Your task to perform on an android device: Go to Google Image 0: 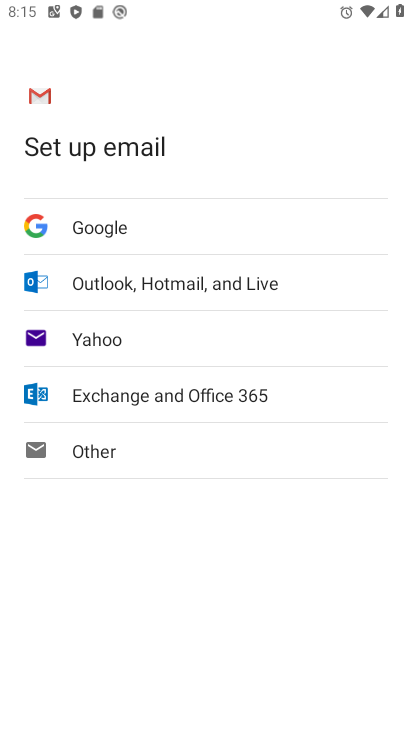
Step 0: press back button
Your task to perform on an android device: Go to Google Image 1: 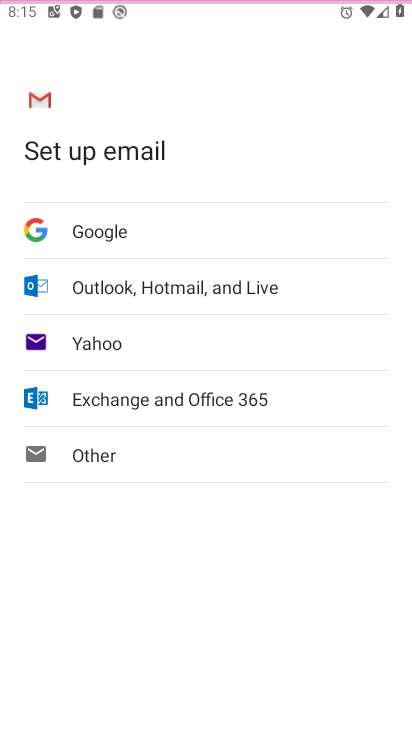
Step 1: press home button
Your task to perform on an android device: Go to Google Image 2: 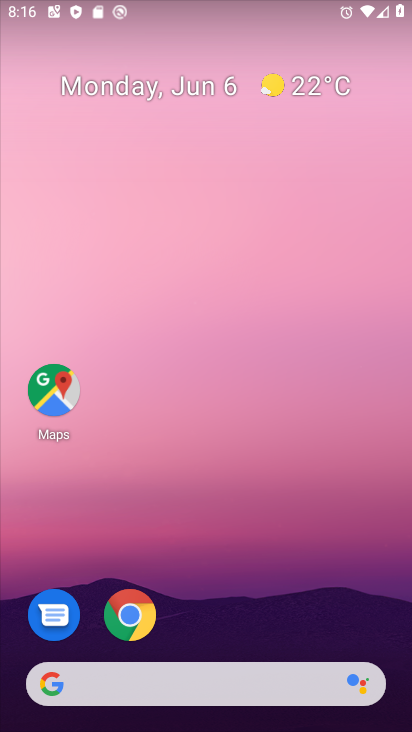
Step 2: drag from (396, 687) to (290, 95)
Your task to perform on an android device: Go to Google Image 3: 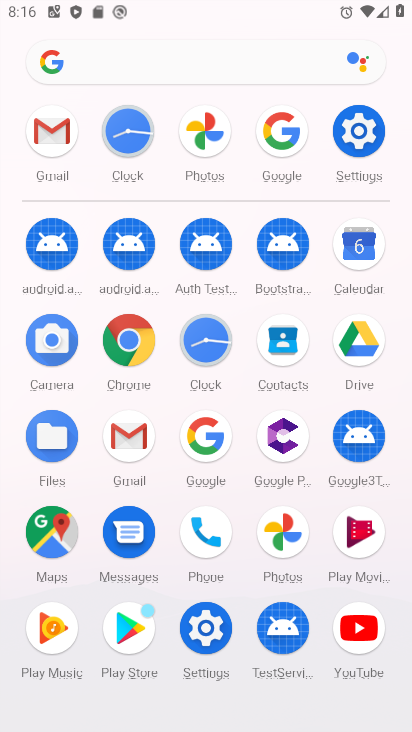
Step 3: click (210, 452)
Your task to perform on an android device: Go to Google Image 4: 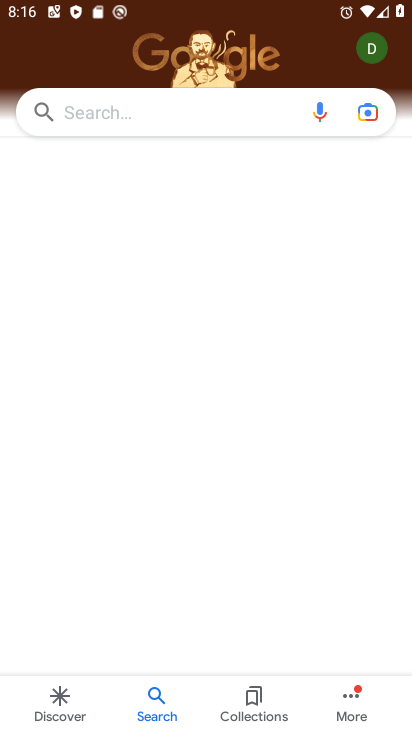
Step 4: task complete